Your task to perform on an android device: What's the weather today? Image 0: 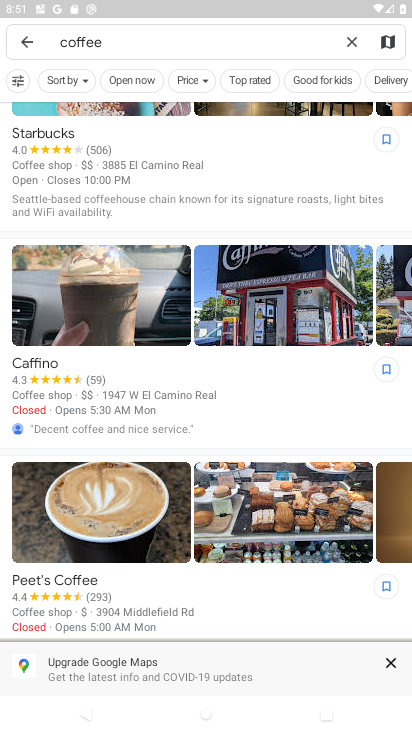
Step 0: press home button
Your task to perform on an android device: What's the weather today? Image 1: 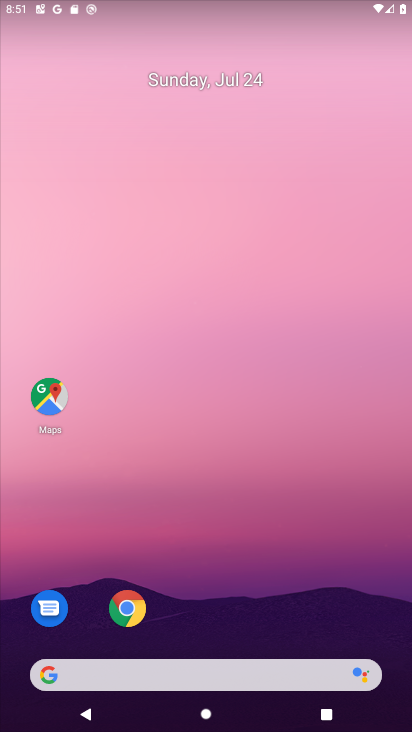
Step 1: click (181, 675)
Your task to perform on an android device: What's the weather today? Image 2: 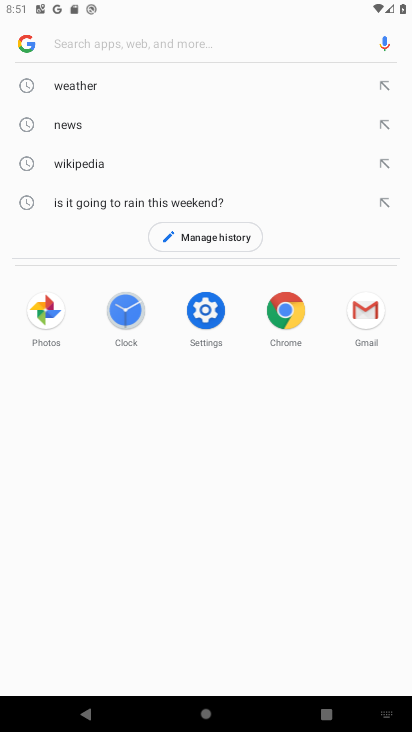
Step 2: click (134, 93)
Your task to perform on an android device: What's the weather today? Image 3: 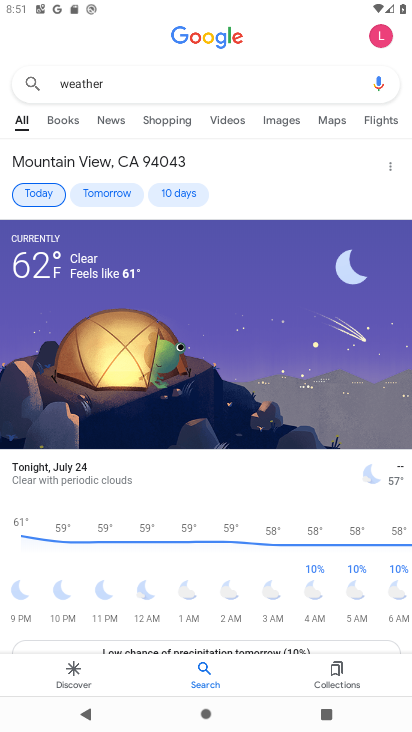
Step 3: task complete